Your task to perform on an android device: Turn off the flashlight Image 0: 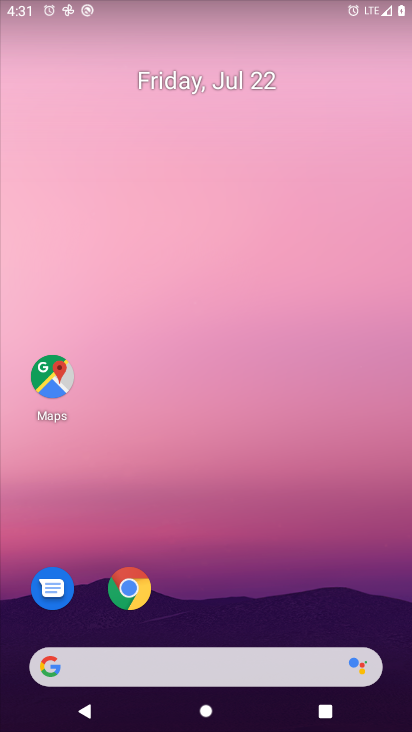
Step 0: task impossible